Your task to perform on an android device: remove spam from my inbox in the gmail app Image 0: 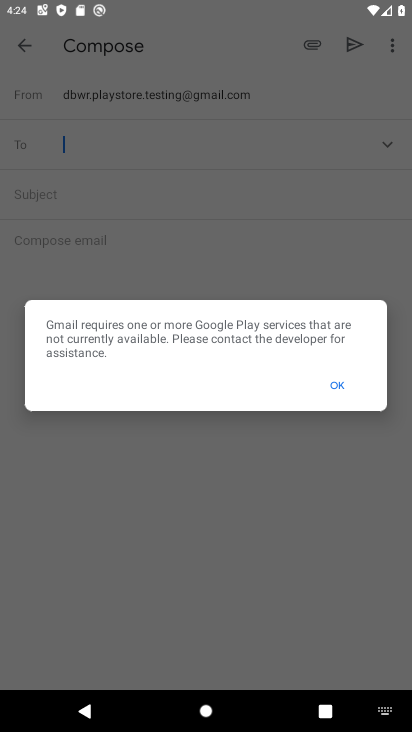
Step 0: press home button
Your task to perform on an android device: remove spam from my inbox in the gmail app Image 1: 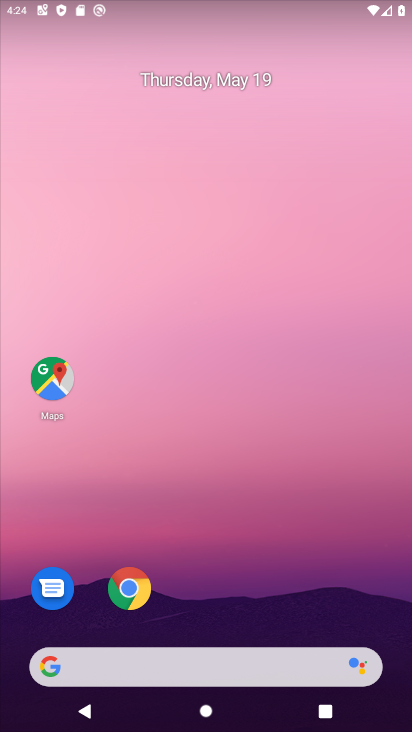
Step 1: drag from (145, 638) to (222, 190)
Your task to perform on an android device: remove spam from my inbox in the gmail app Image 2: 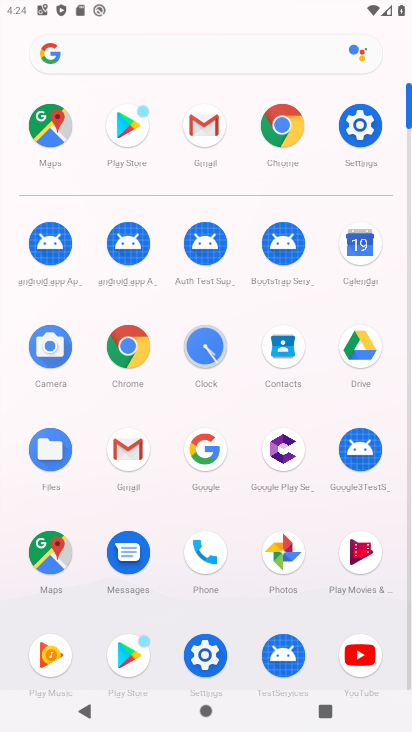
Step 2: click (203, 136)
Your task to perform on an android device: remove spam from my inbox in the gmail app Image 3: 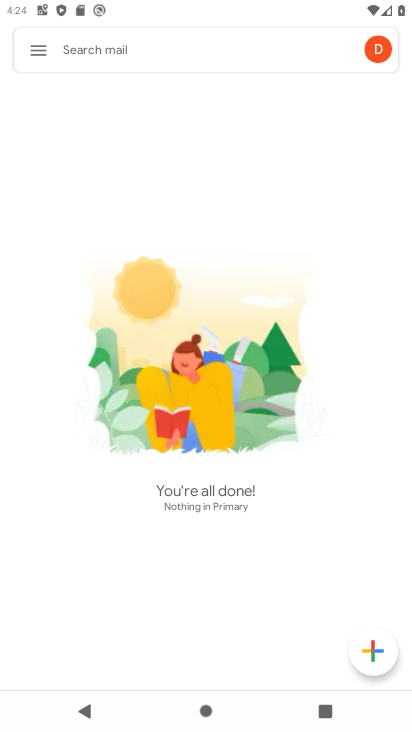
Step 3: click (44, 51)
Your task to perform on an android device: remove spam from my inbox in the gmail app Image 4: 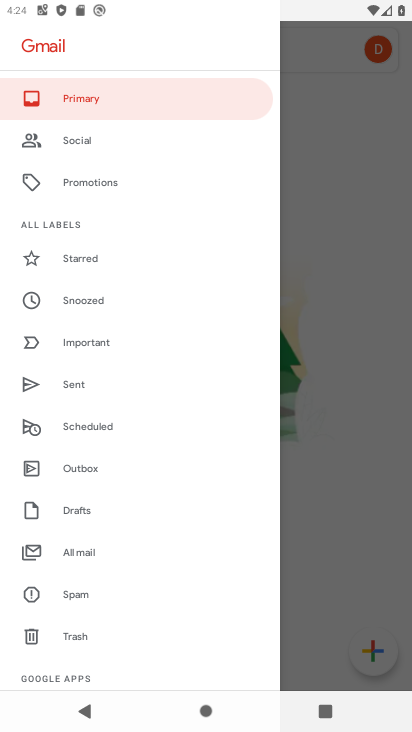
Step 4: click (51, 584)
Your task to perform on an android device: remove spam from my inbox in the gmail app Image 5: 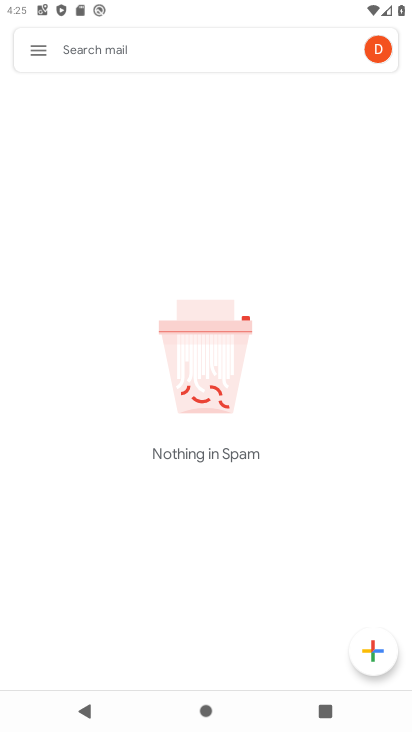
Step 5: task complete